Your task to perform on an android device: Open calendar and show me the first week of next month Image 0: 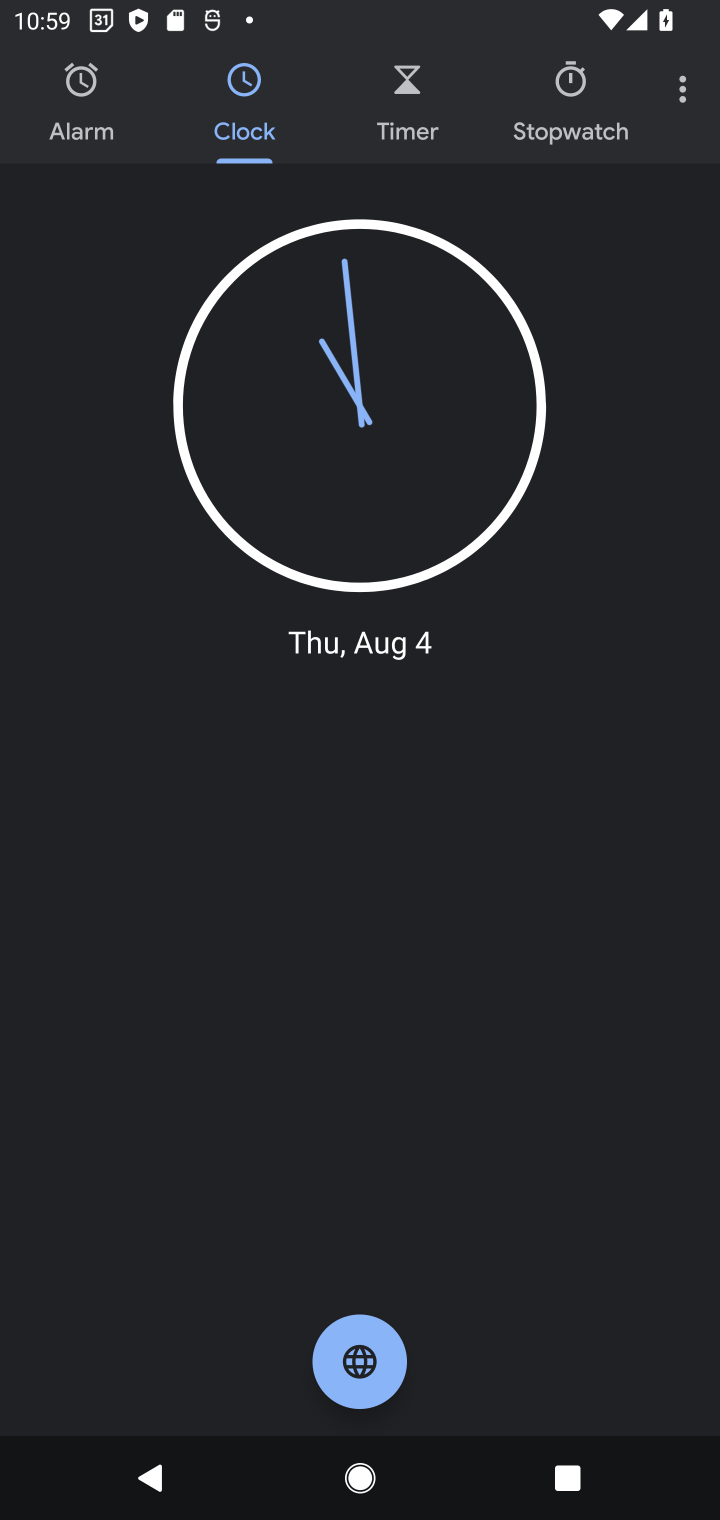
Step 0: press home button
Your task to perform on an android device: Open calendar and show me the first week of next month Image 1: 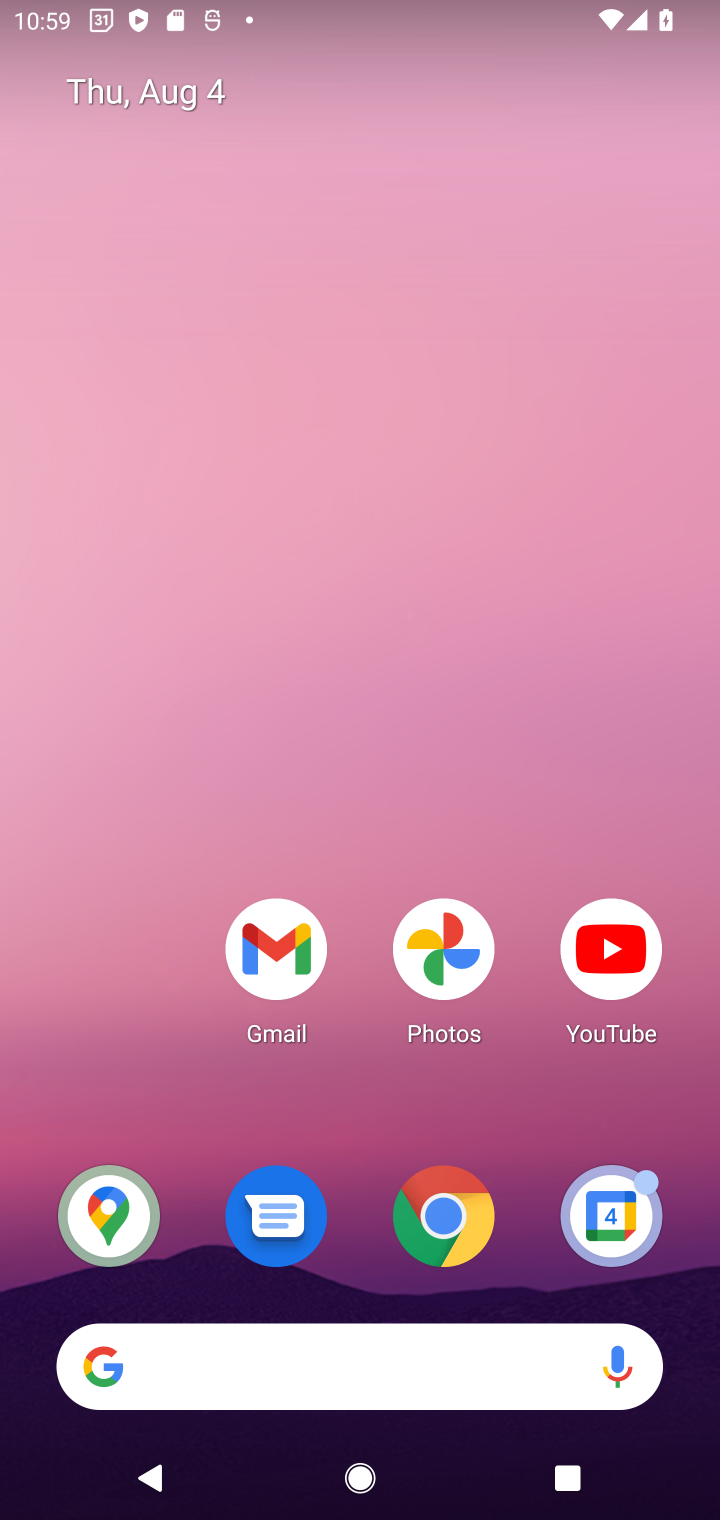
Step 1: drag from (334, 1372) to (377, 68)
Your task to perform on an android device: Open calendar and show me the first week of next month Image 2: 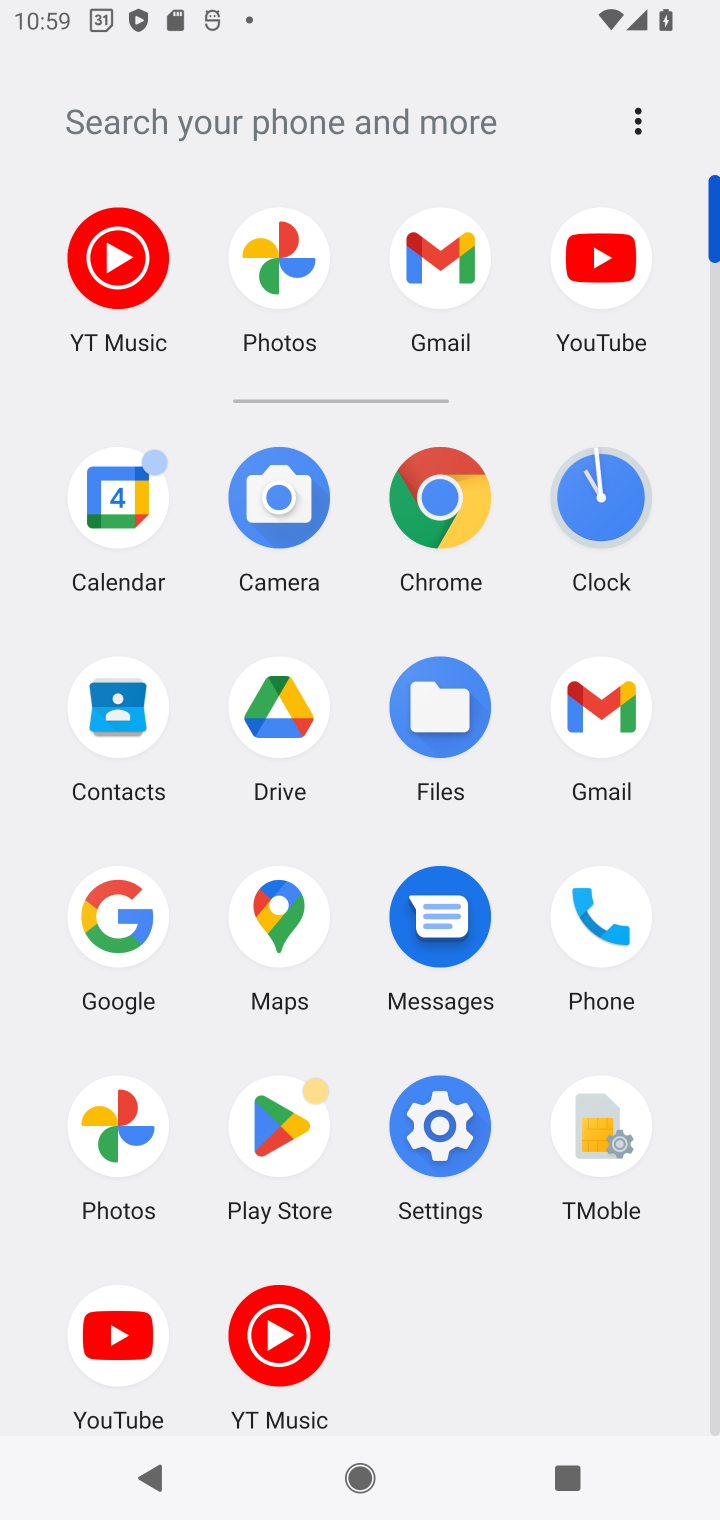
Step 2: click (126, 497)
Your task to perform on an android device: Open calendar and show me the first week of next month Image 3: 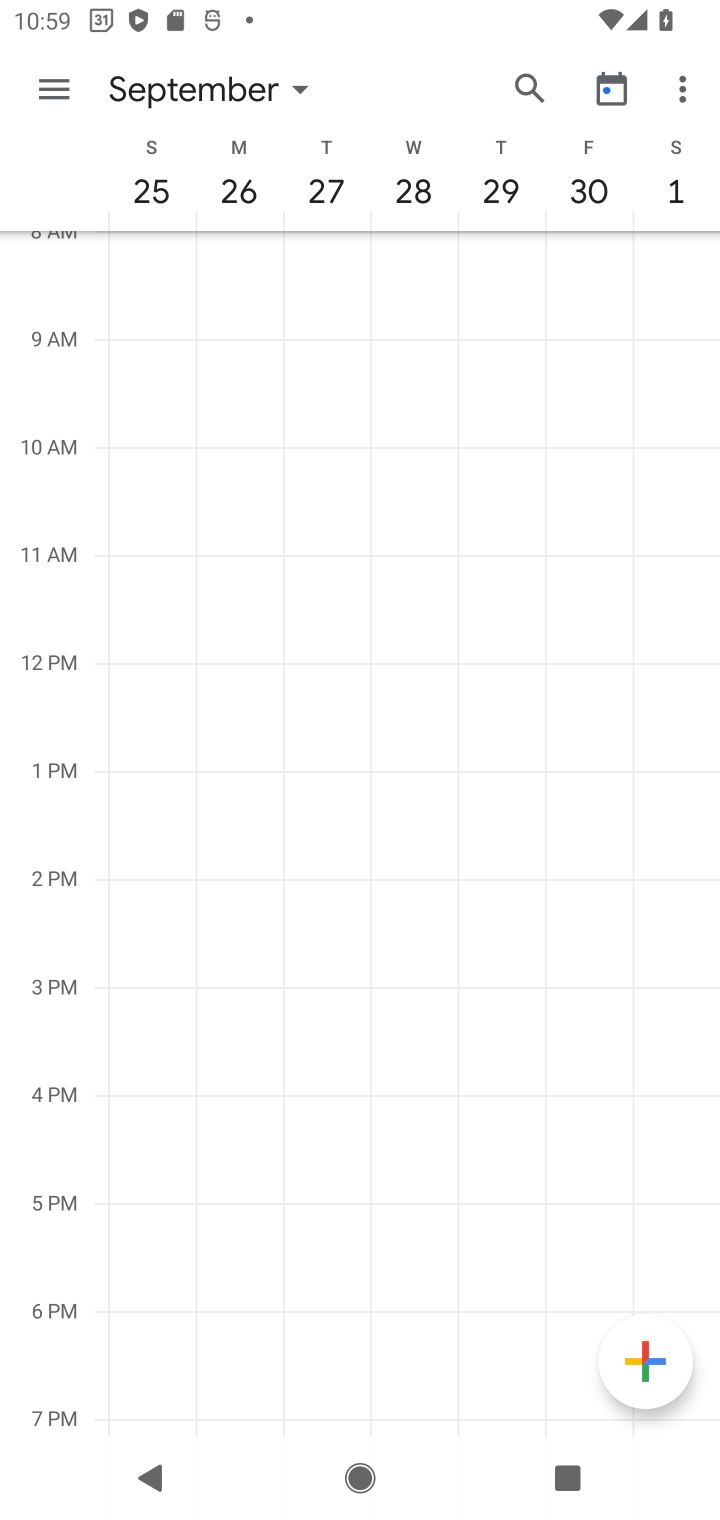
Step 3: click (618, 85)
Your task to perform on an android device: Open calendar and show me the first week of next month Image 4: 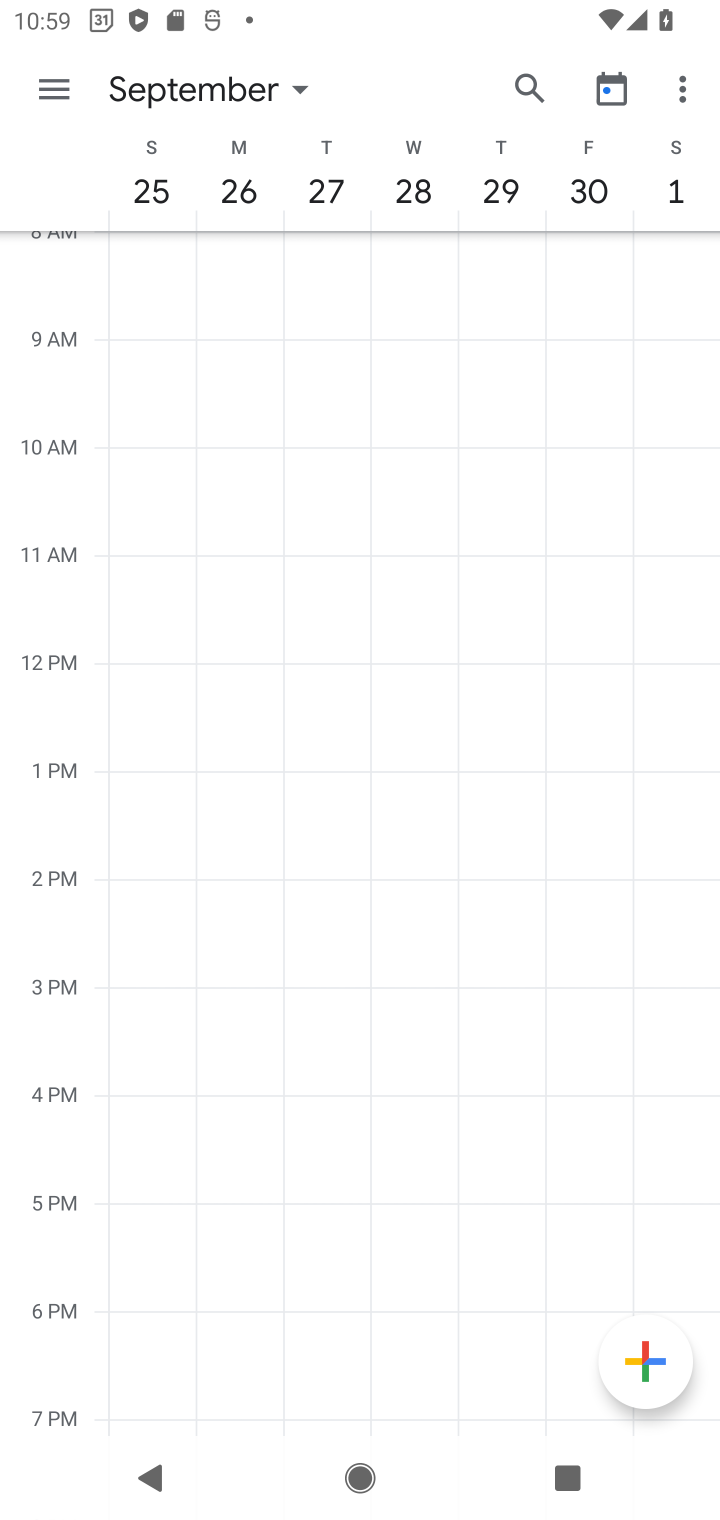
Step 4: click (616, 91)
Your task to perform on an android device: Open calendar and show me the first week of next month Image 5: 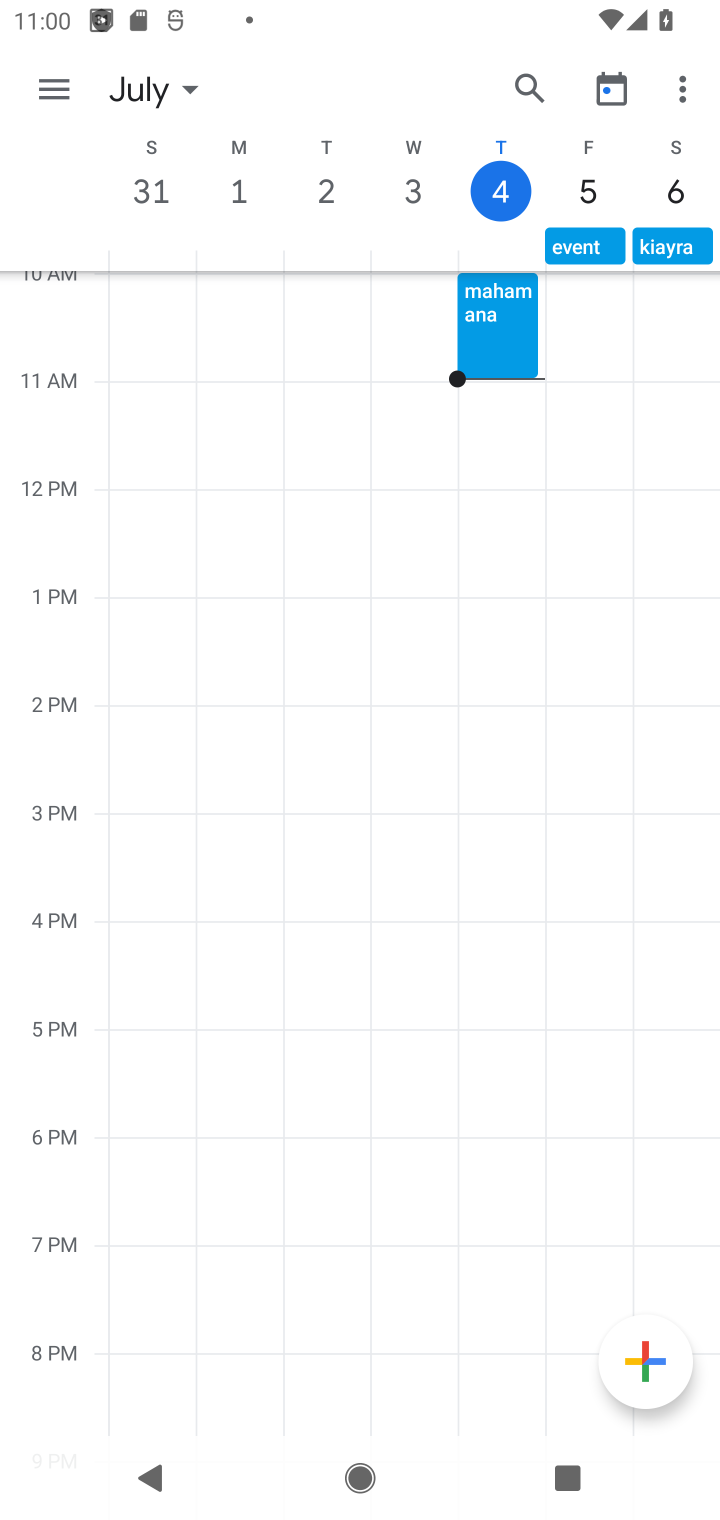
Step 5: click (191, 88)
Your task to perform on an android device: Open calendar and show me the first week of next month Image 6: 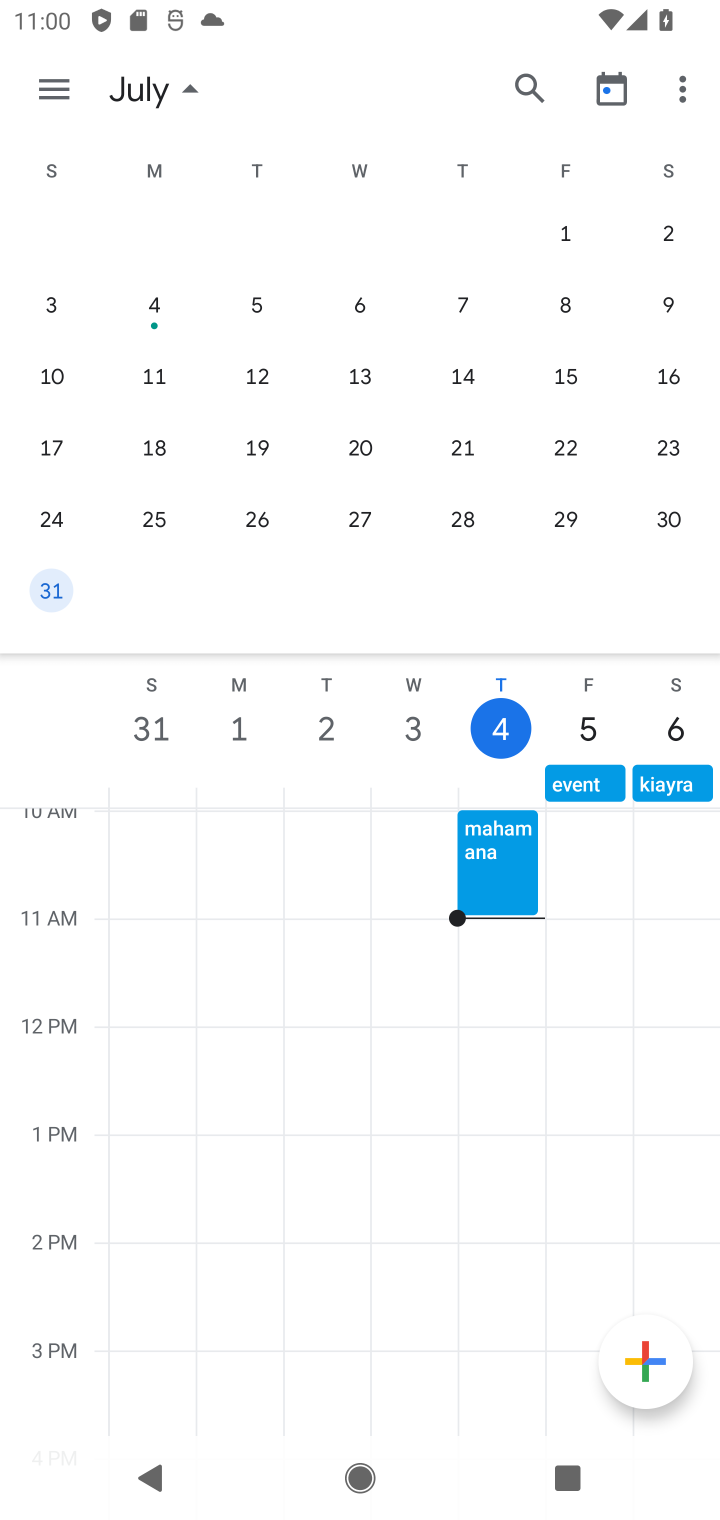
Step 6: drag from (686, 441) to (1, 341)
Your task to perform on an android device: Open calendar and show me the first week of next month Image 7: 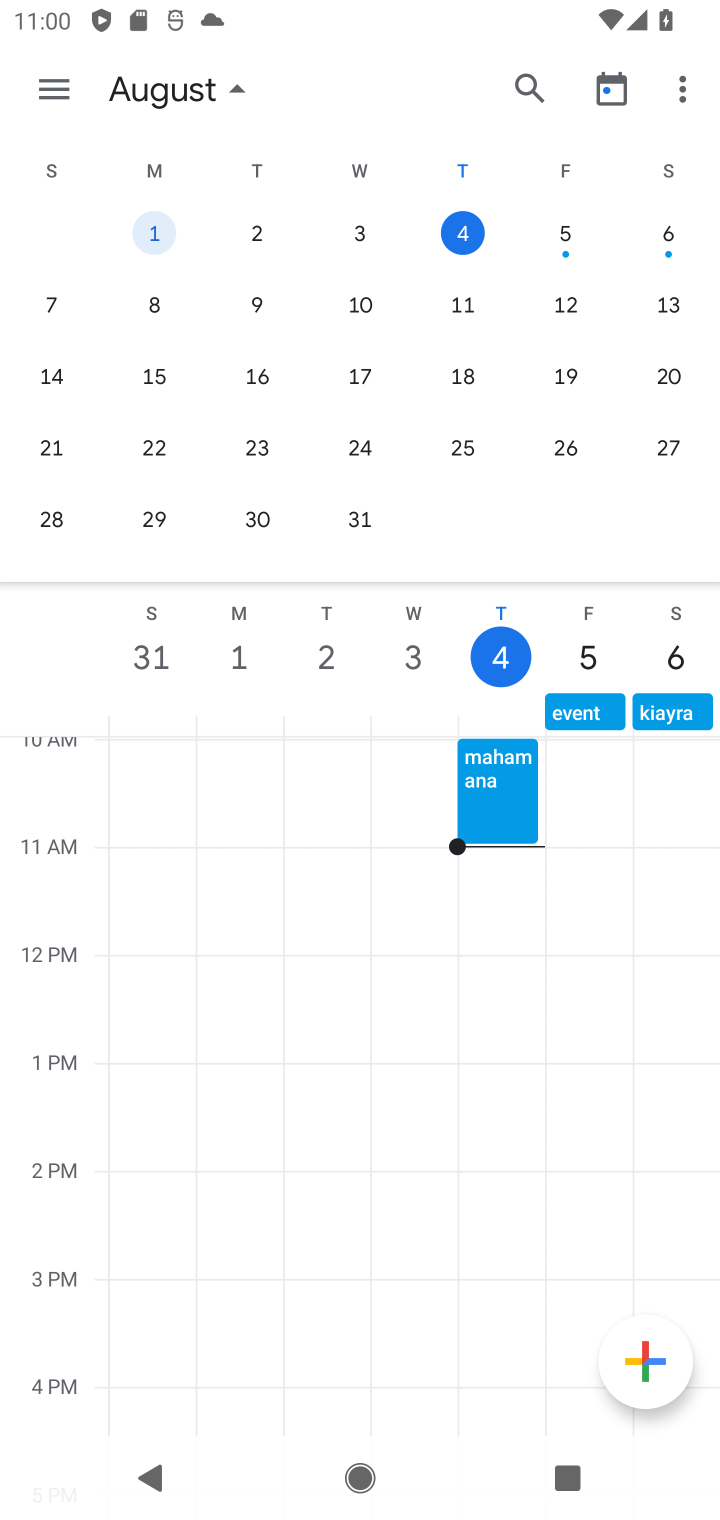
Step 7: drag from (672, 407) to (0, 378)
Your task to perform on an android device: Open calendar and show me the first week of next month Image 8: 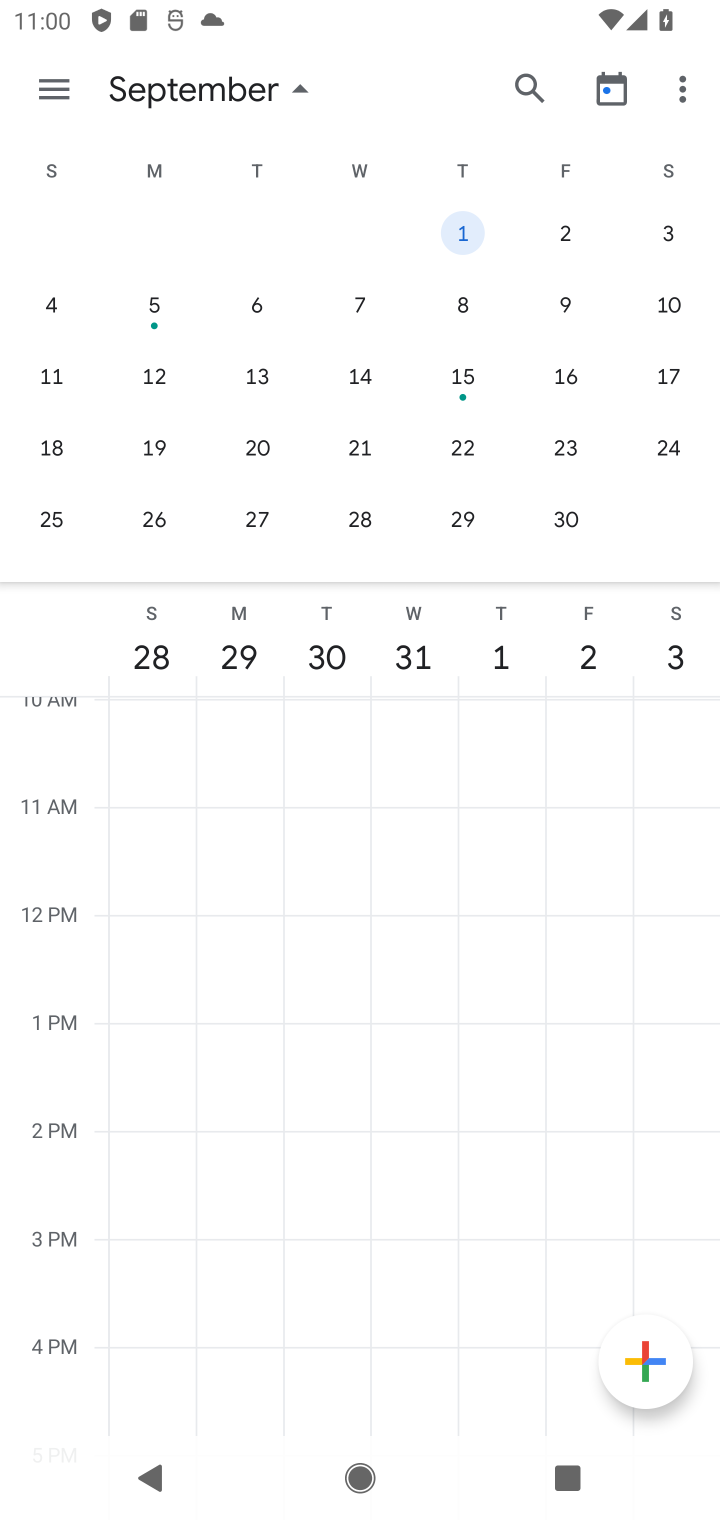
Step 8: click (163, 307)
Your task to perform on an android device: Open calendar and show me the first week of next month Image 9: 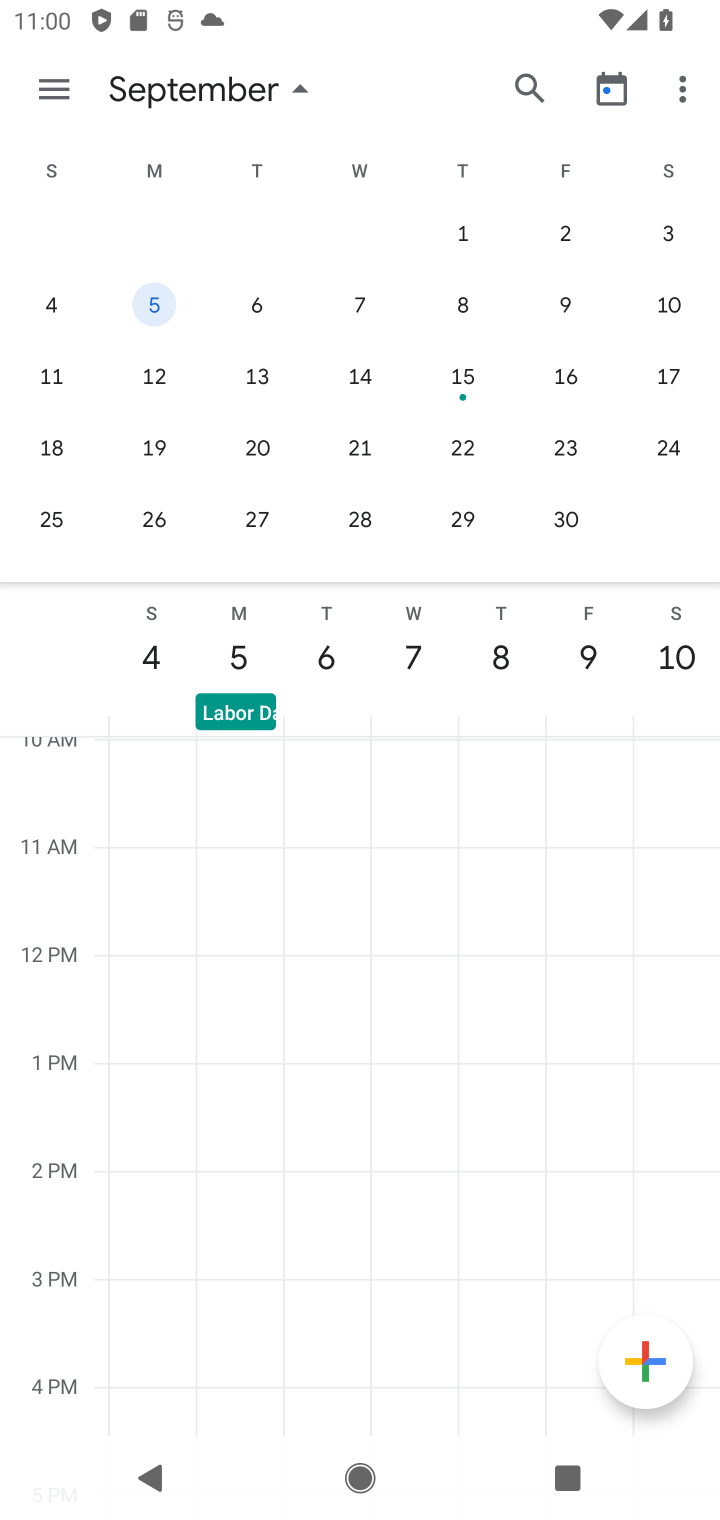
Step 9: click (55, 78)
Your task to perform on an android device: Open calendar and show me the first week of next month Image 10: 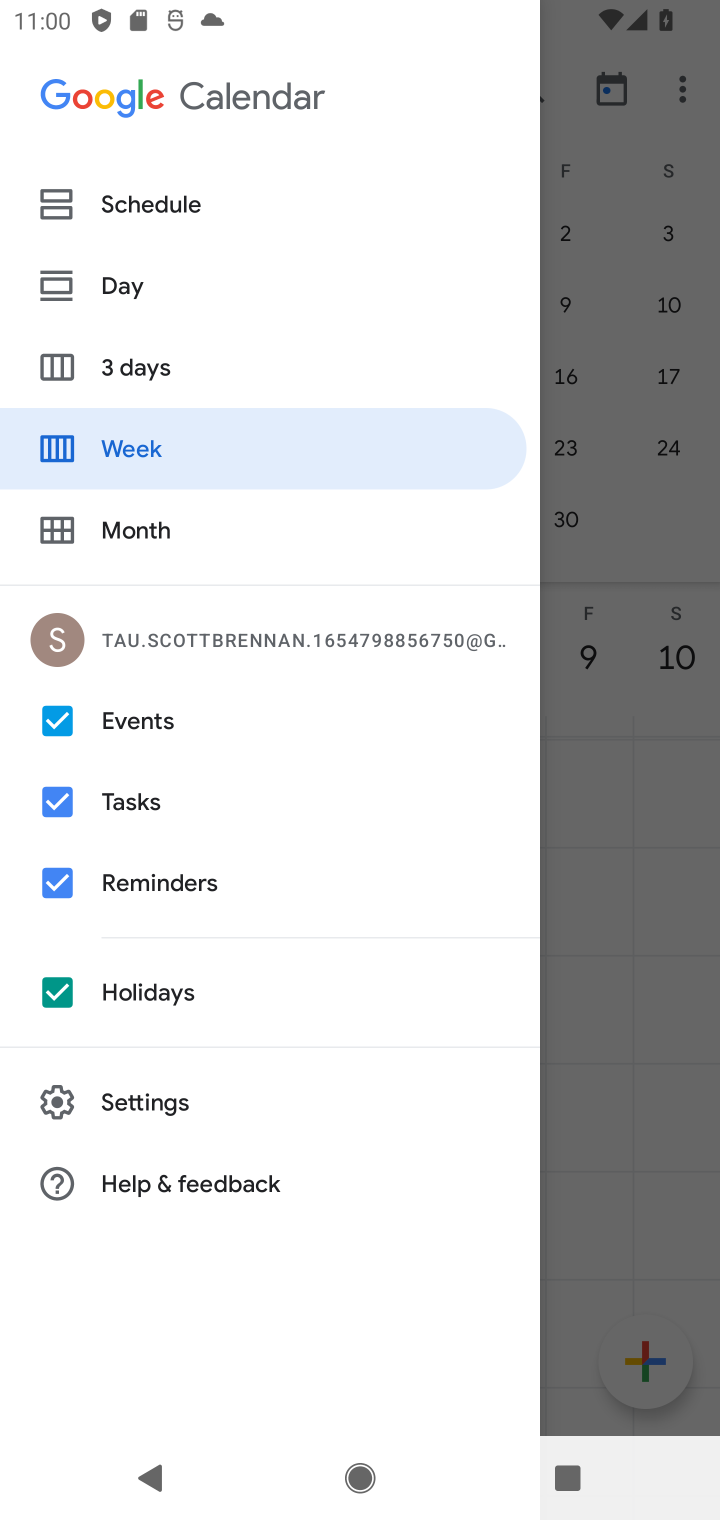
Step 10: click (185, 446)
Your task to perform on an android device: Open calendar and show me the first week of next month Image 11: 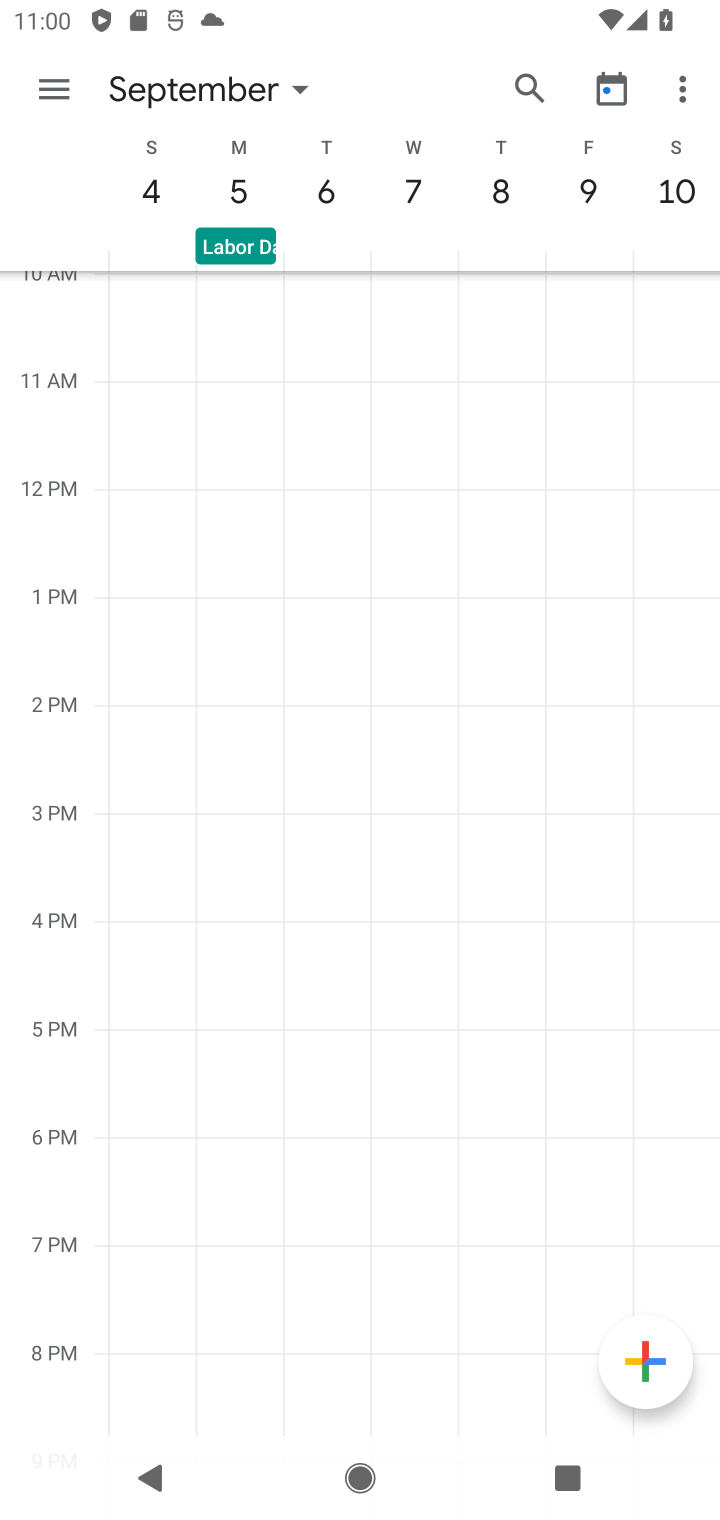
Step 11: task complete